Your task to perform on an android device: move an email to a new category in the gmail app Image 0: 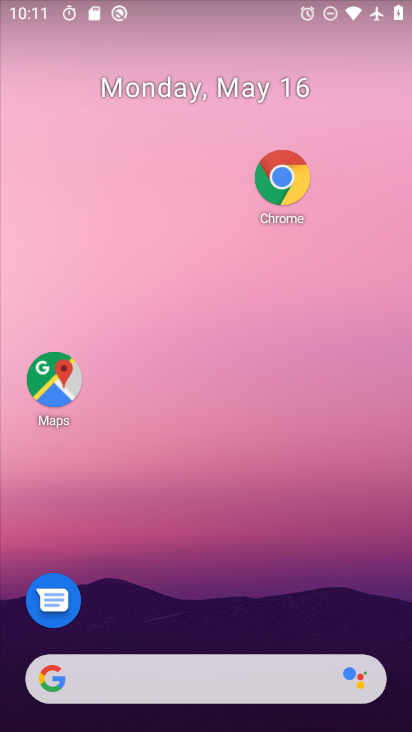
Step 0: press home button
Your task to perform on an android device: move an email to a new category in the gmail app Image 1: 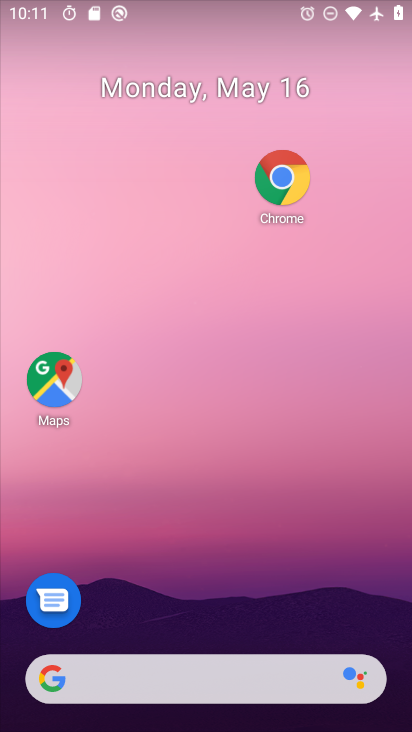
Step 1: drag from (205, 690) to (266, 171)
Your task to perform on an android device: move an email to a new category in the gmail app Image 2: 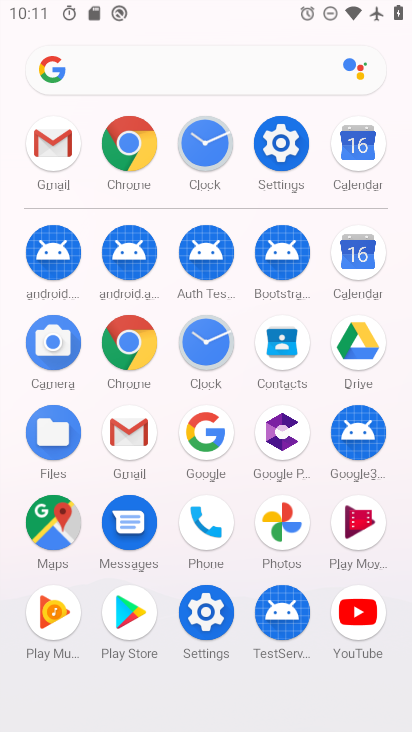
Step 2: click (53, 155)
Your task to perform on an android device: move an email to a new category in the gmail app Image 3: 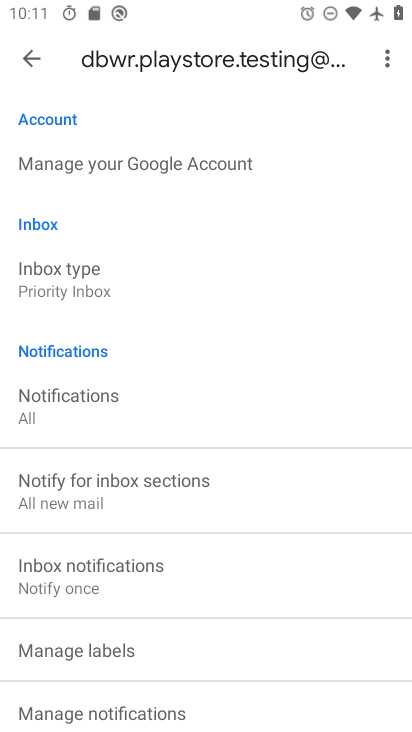
Step 3: click (36, 57)
Your task to perform on an android device: move an email to a new category in the gmail app Image 4: 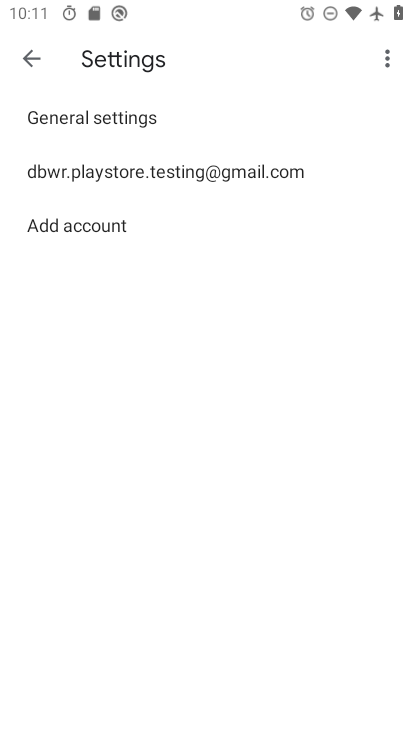
Step 4: click (36, 57)
Your task to perform on an android device: move an email to a new category in the gmail app Image 5: 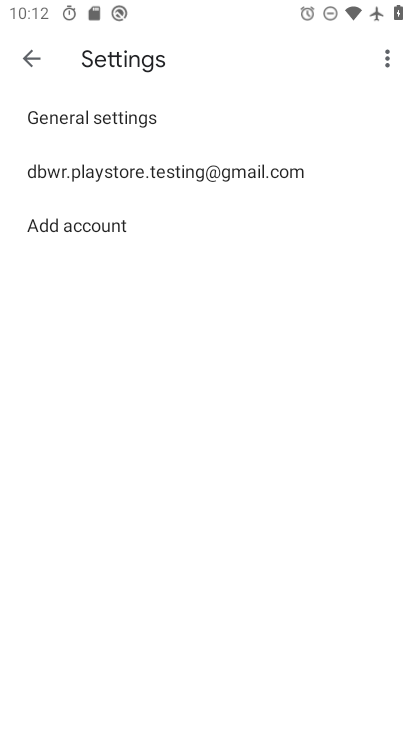
Step 5: click (36, 56)
Your task to perform on an android device: move an email to a new category in the gmail app Image 6: 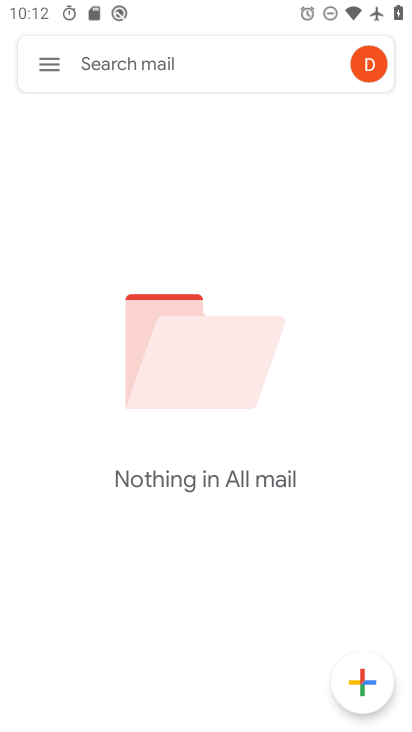
Step 6: task complete